Your task to perform on an android device: Search for Italian restaurants on Maps Image 0: 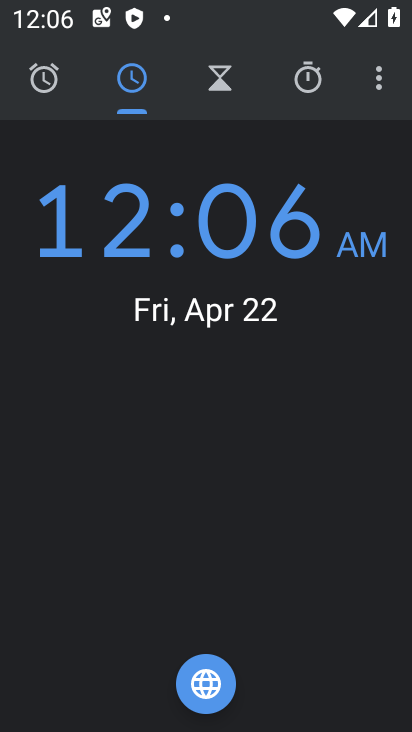
Step 0: press home button
Your task to perform on an android device: Search for Italian restaurants on Maps Image 1: 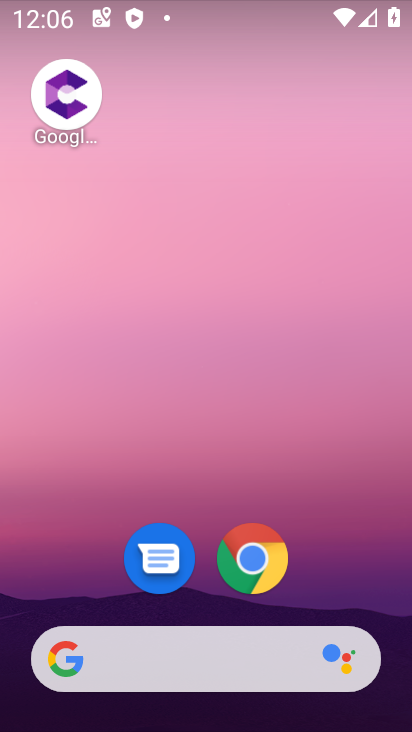
Step 1: drag from (387, 617) to (253, 64)
Your task to perform on an android device: Search for Italian restaurants on Maps Image 2: 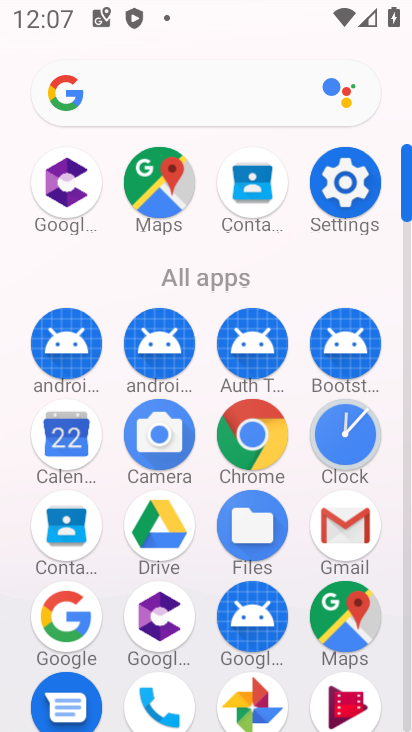
Step 2: click (351, 600)
Your task to perform on an android device: Search for Italian restaurants on Maps Image 3: 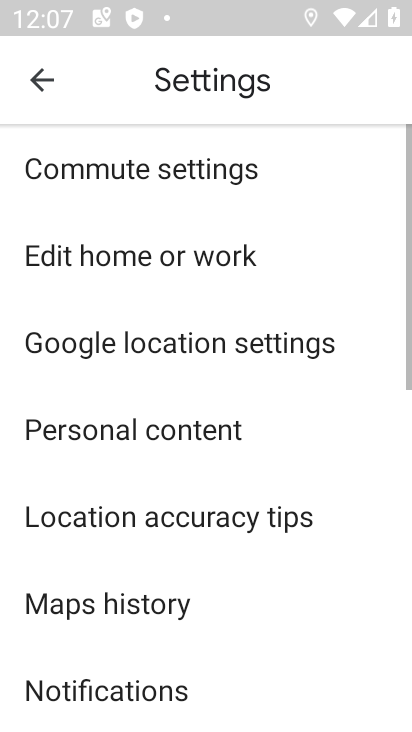
Step 3: click (41, 72)
Your task to perform on an android device: Search for Italian restaurants on Maps Image 4: 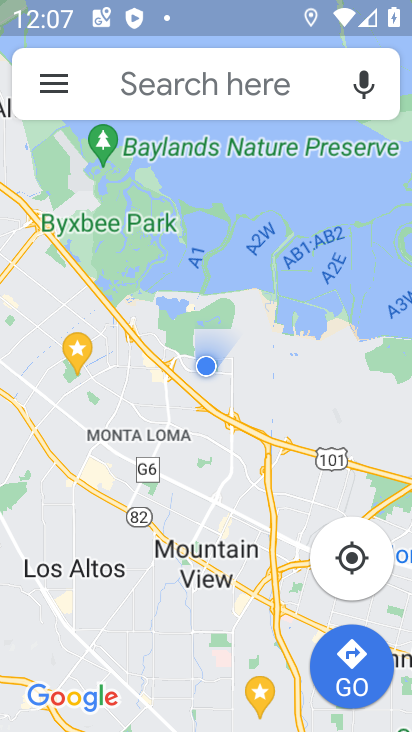
Step 4: click (179, 96)
Your task to perform on an android device: Search for Italian restaurants on Maps Image 5: 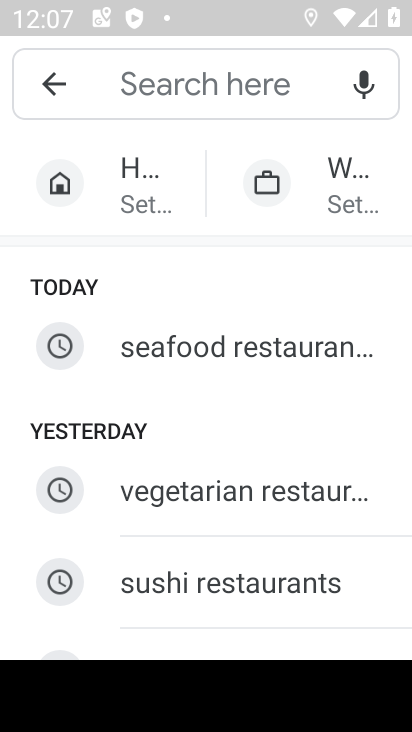
Step 5: drag from (215, 575) to (231, 192)
Your task to perform on an android device: Search for Italian restaurants on Maps Image 6: 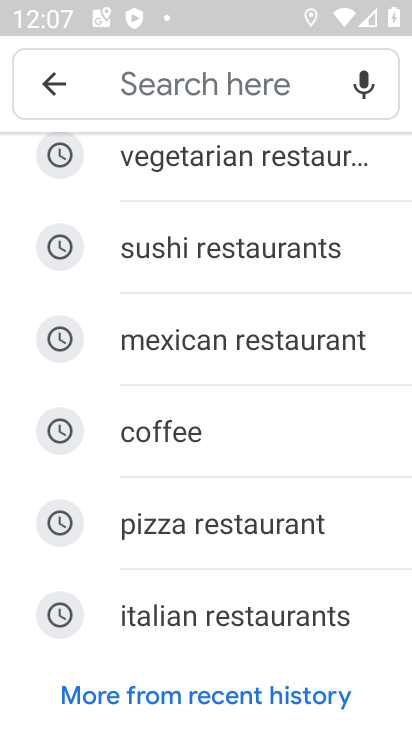
Step 6: click (187, 613)
Your task to perform on an android device: Search for Italian restaurants on Maps Image 7: 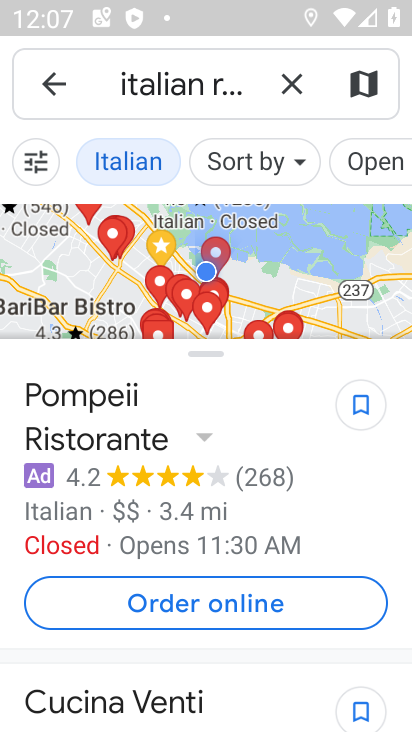
Step 7: task complete